Your task to perform on an android device: Go to Reddit.com Image 0: 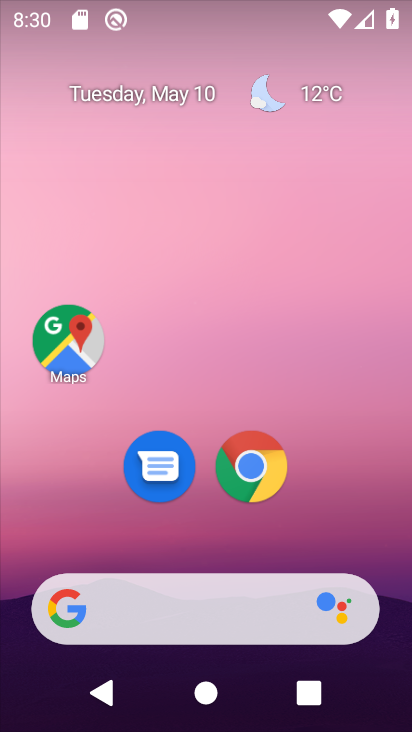
Step 0: click (253, 463)
Your task to perform on an android device: Go to Reddit.com Image 1: 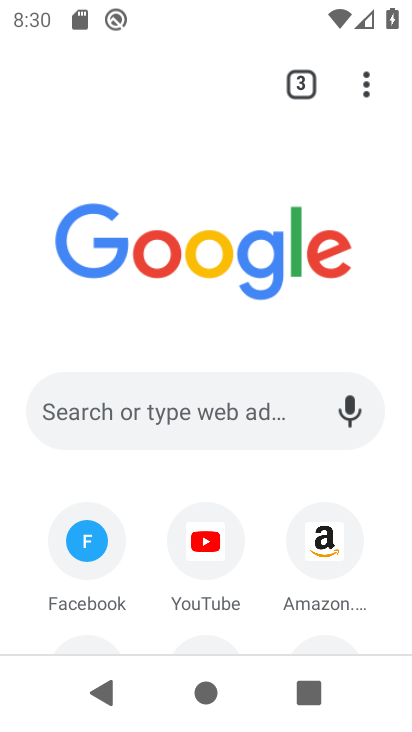
Step 1: click (217, 425)
Your task to perform on an android device: Go to Reddit.com Image 2: 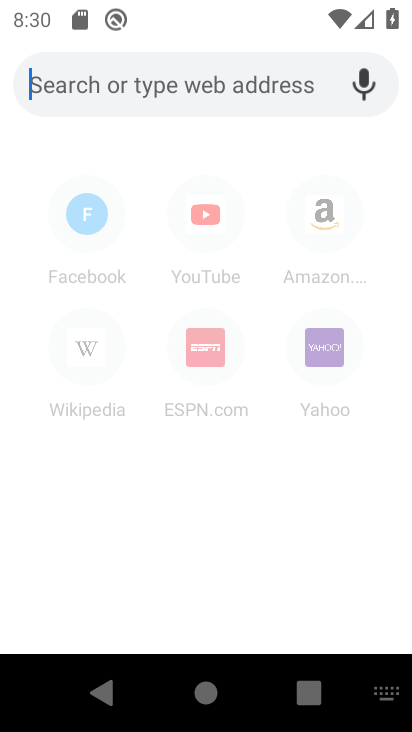
Step 2: type "Reddit.com"
Your task to perform on an android device: Go to Reddit.com Image 3: 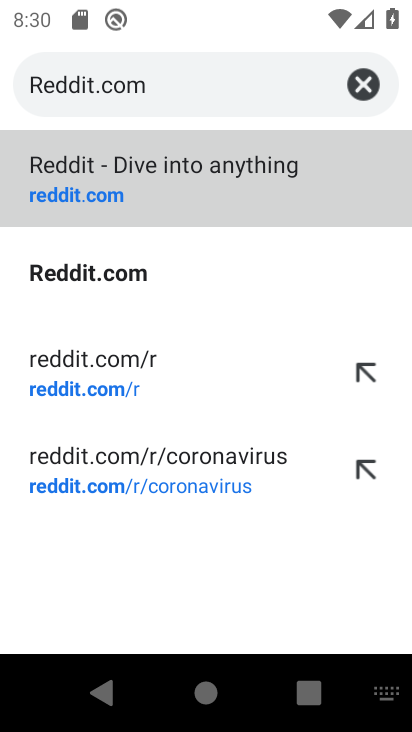
Step 3: click (155, 289)
Your task to perform on an android device: Go to Reddit.com Image 4: 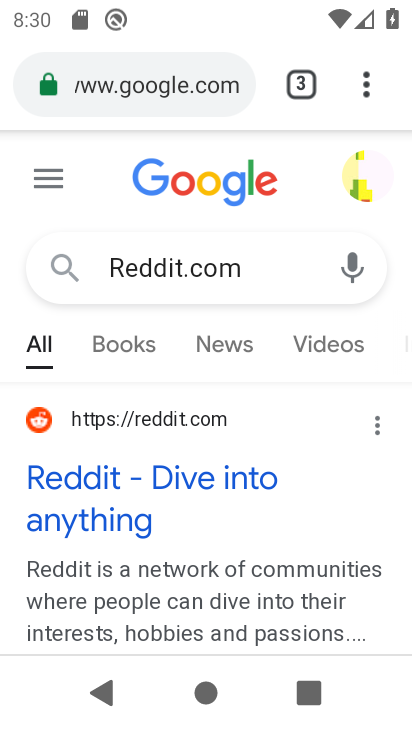
Step 4: task complete